Your task to perform on an android device: allow notifications from all sites in the chrome app Image 0: 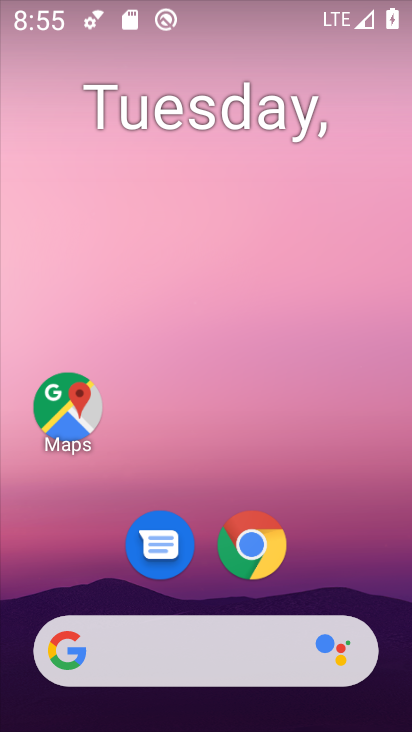
Step 0: click (254, 553)
Your task to perform on an android device: allow notifications from all sites in the chrome app Image 1: 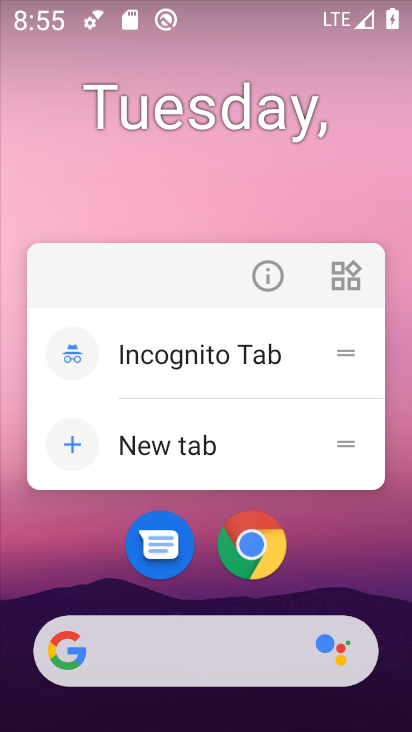
Step 1: click (254, 553)
Your task to perform on an android device: allow notifications from all sites in the chrome app Image 2: 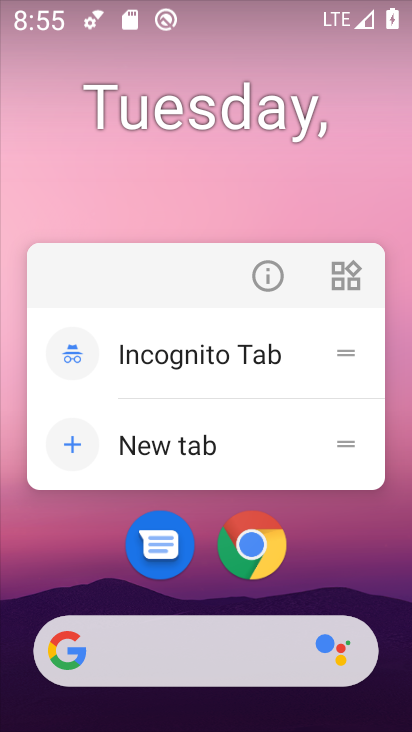
Step 2: click (254, 552)
Your task to perform on an android device: allow notifications from all sites in the chrome app Image 3: 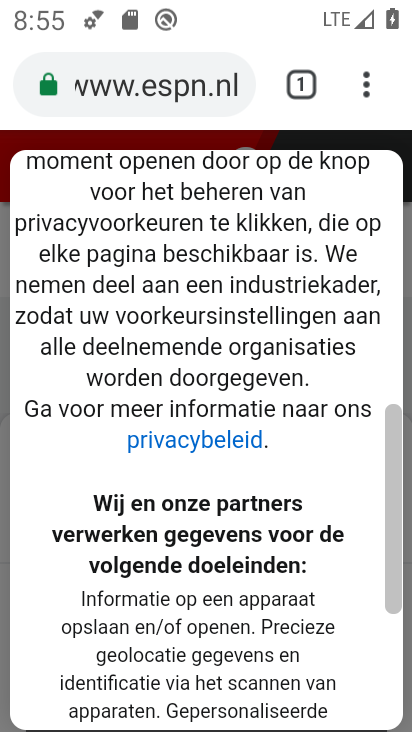
Step 3: click (368, 88)
Your task to perform on an android device: allow notifications from all sites in the chrome app Image 4: 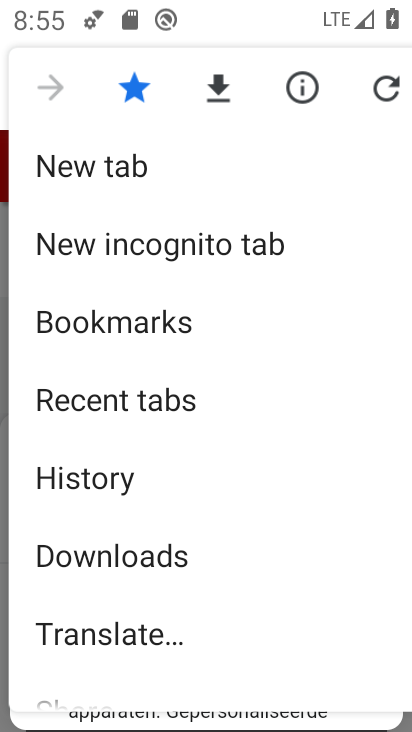
Step 4: drag from (161, 590) to (129, 262)
Your task to perform on an android device: allow notifications from all sites in the chrome app Image 5: 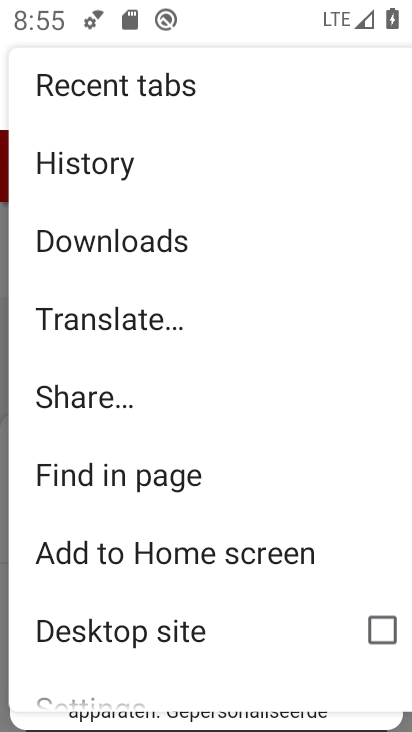
Step 5: drag from (153, 638) to (162, 237)
Your task to perform on an android device: allow notifications from all sites in the chrome app Image 6: 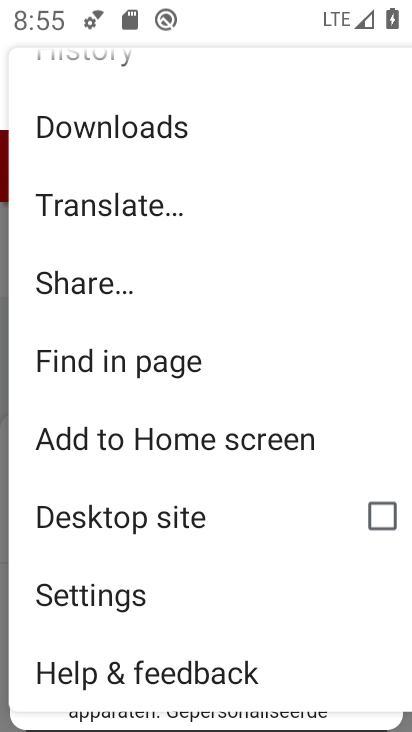
Step 6: click (114, 584)
Your task to perform on an android device: allow notifications from all sites in the chrome app Image 7: 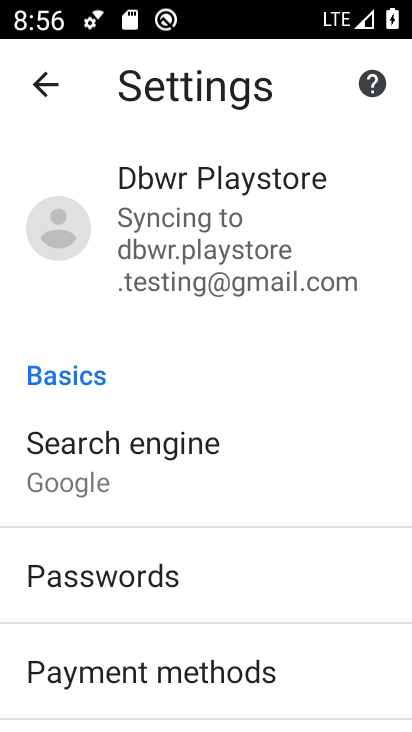
Step 7: drag from (251, 215) to (237, 272)
Your task to perform on an android device: allow notifications from all sites in the chrome app Image 8: 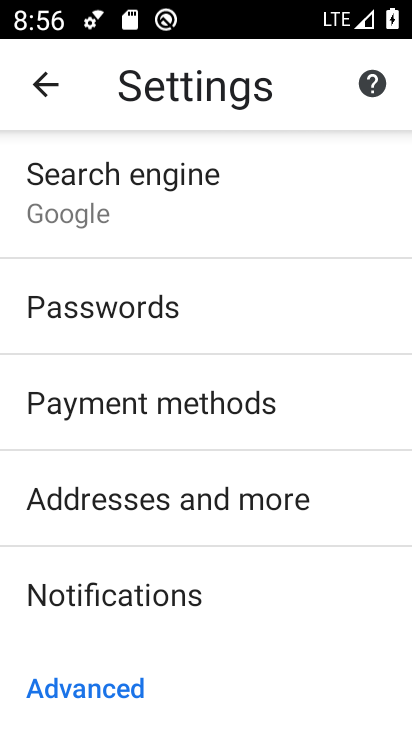
Step 8: click (104, 581)
Your task to perform on an android device: allow notifications from all sites in the chrome app Image 9: 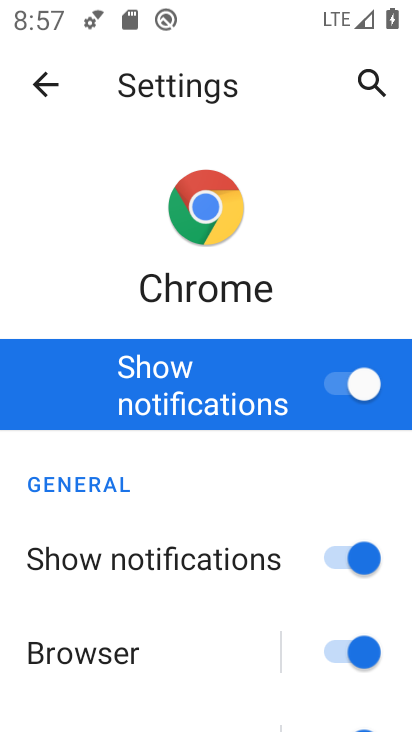
Step 9: task complete